Your task to perform on an android device: Open Android settings Image 0: 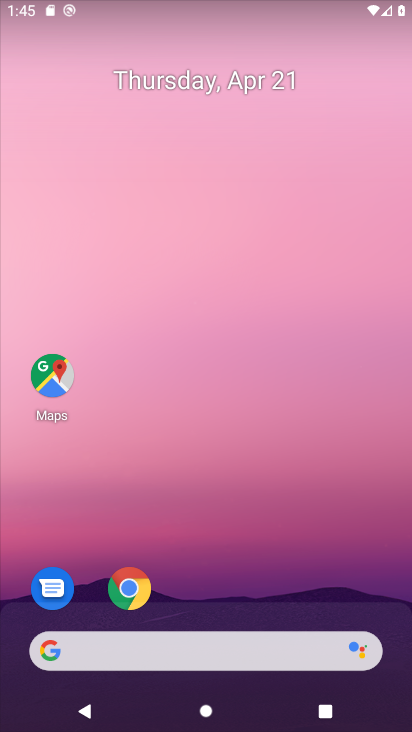
Step 0: drag from (239, 574) to (198, 135)
Your task to perform on an android device: Open Android settings Image 1: 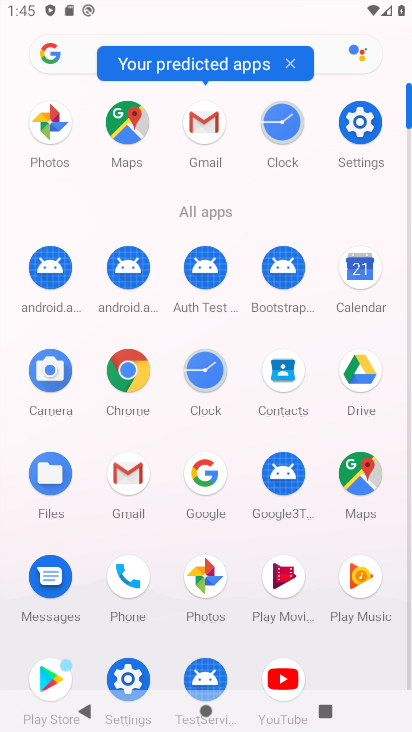
Step 1: click (130, 666)
Your task to perform on an android device: Open Android settings Image 2: 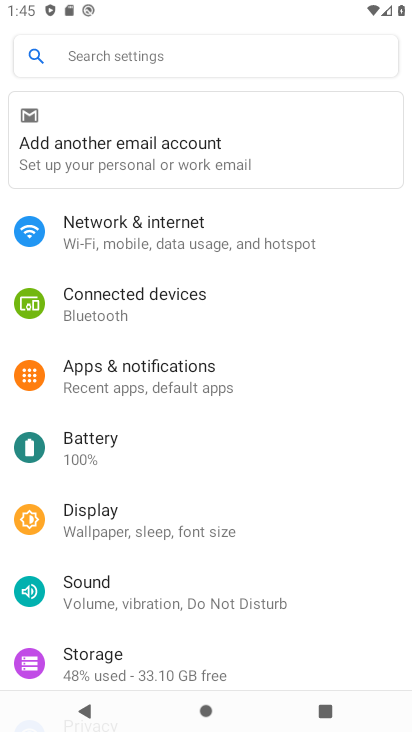
Step 2: drag from (175, 657) to (157, 497)
Your task to perform on an android device: Open Android settings Image 3: 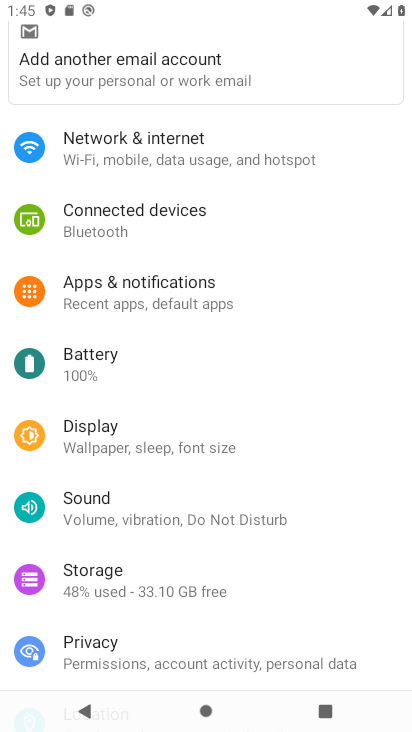
Step 3: drag from (160, 583) to (192, 445)
Your task to perform on an android device: Open Android settings Image 4: 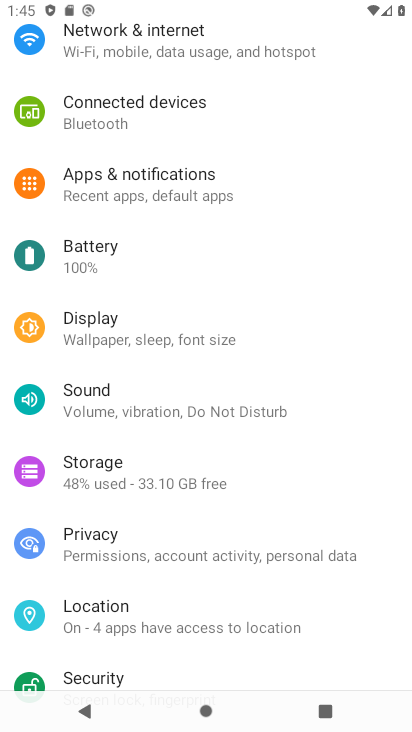
Step 4: drag from (186, 538) to (192, 456)
Your task to perform on an android device: Open Android settings Image 5: 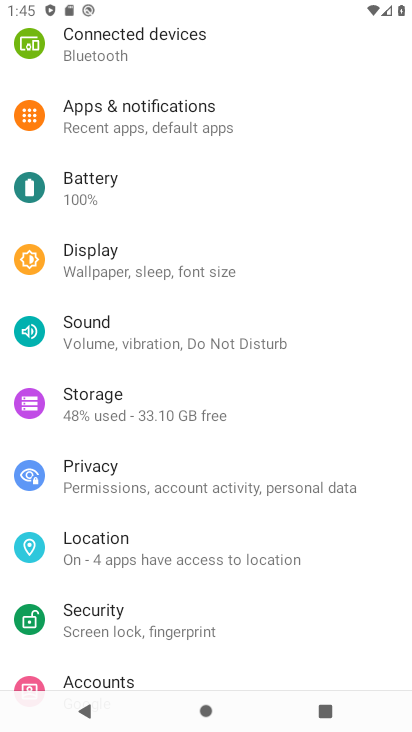
Step 5: drag from (155, 580) to (163, 426)
Your task to perform on an android device: Open Android settings Image 6: 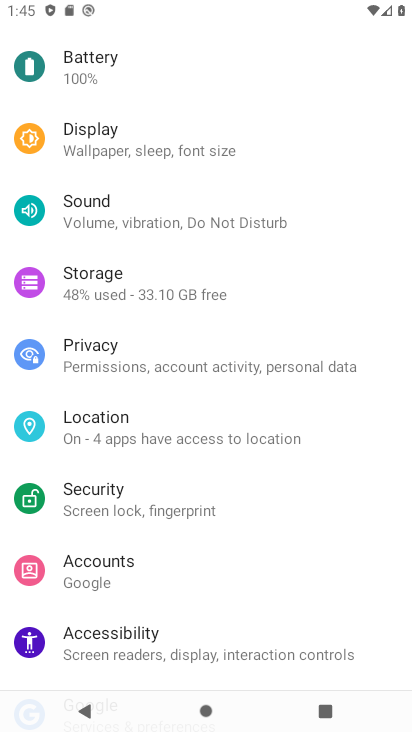
Step 6: drag from (174, 585) to (177, 484)
Your task to perform on an android device: Open Android settings Image 7: 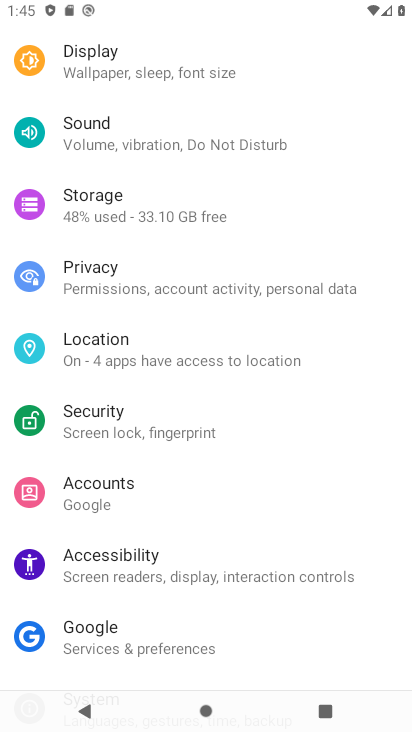
Step 7: drag from (164, 624) to (182, 488)
Your task to perform on an android device: Open Android settings Image 8: 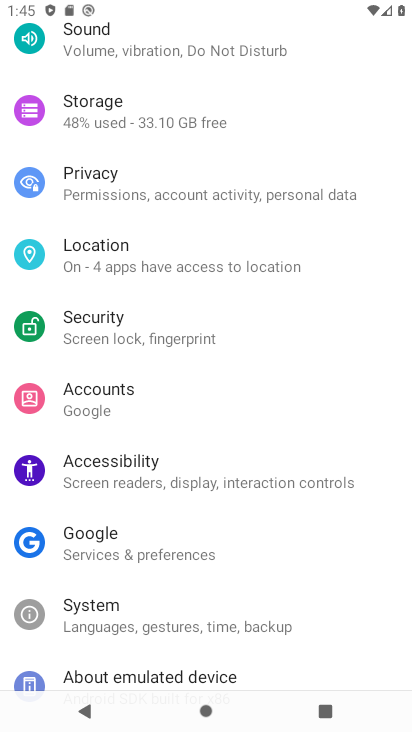
Step 8: drag from (186, 590) to (192, 490)
Your task to perform on an android device: Open Android settings Image 9: 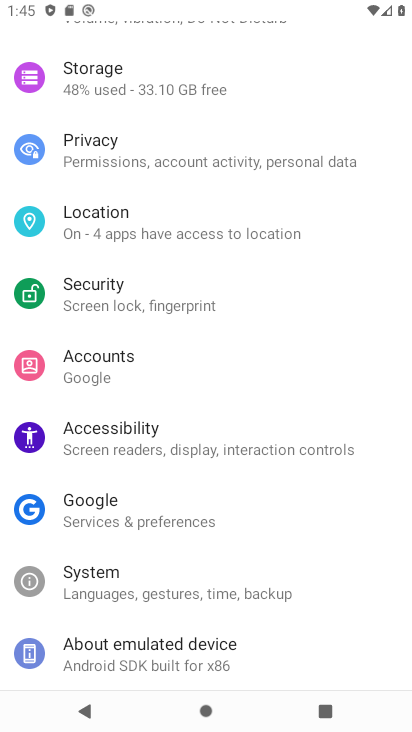
Step 9: click (172, 607)
Your task to perform on an android device: Open Android settings Image 10: 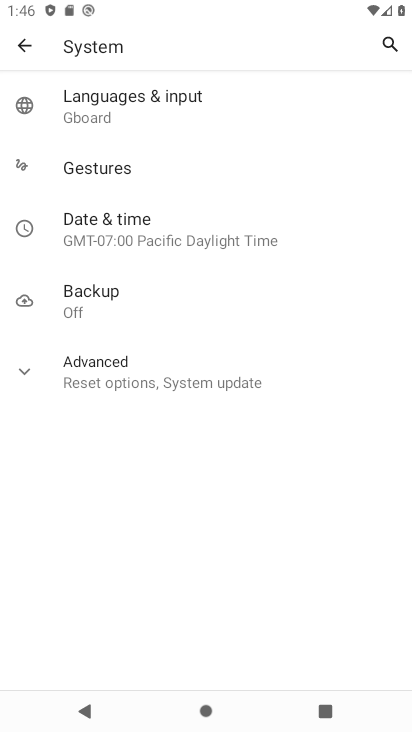
Step 10: task complete